Your task to perform on an android device: Go to location settings Image 0: 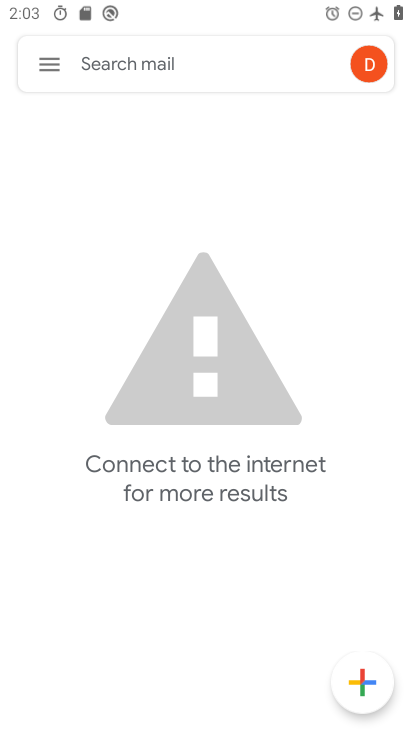
Step 0: press home button
Your task to perform on an android device: Go to location settings Image 1: 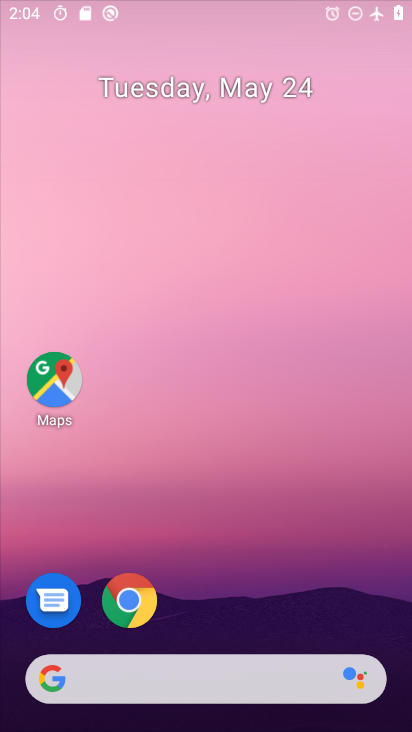
Step 1: drag from (237, 551) to (233, 134)
Your task to perform on an android device: Go to location settings Image 2: 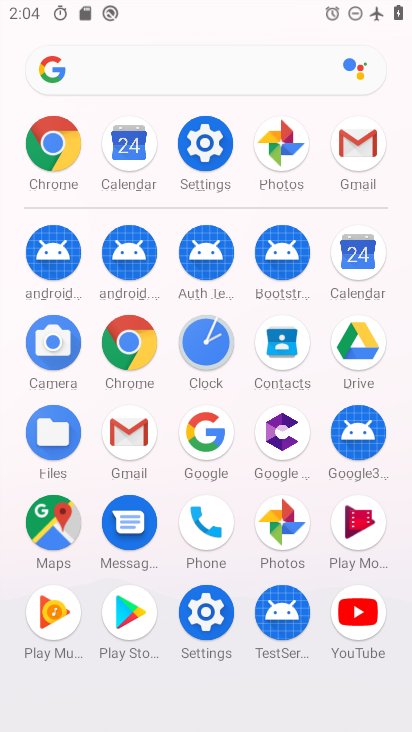
Step 2: click (212, 142)
Your task to perform on an android device: Go to location settings Image 3: 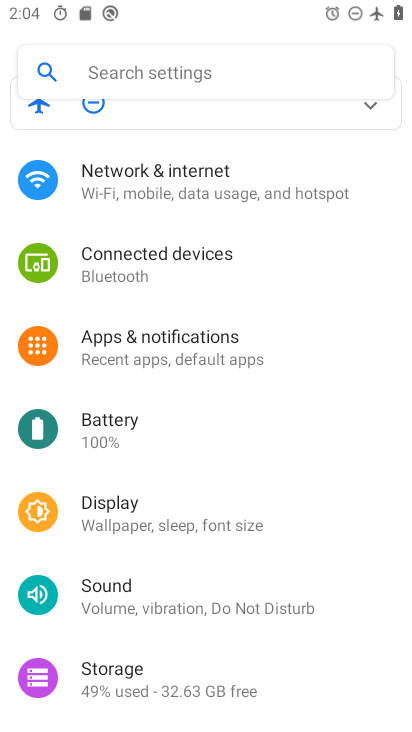
Step 3: drag from (165, 554) to (188, 242)
Your task to perform on an android device: Go to location settings Image 4: 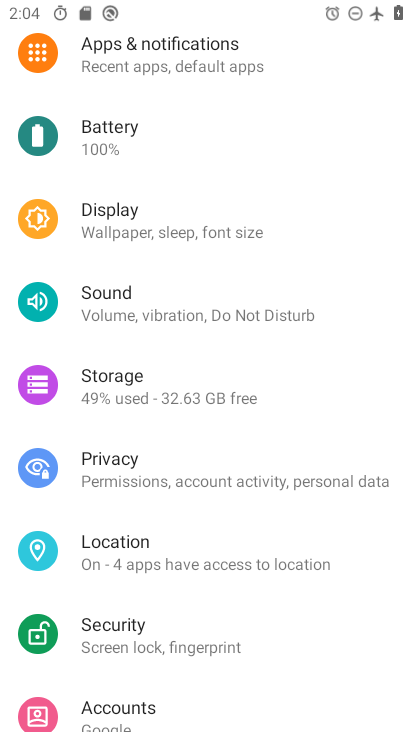
Step 4: click (135, 542)
Your task to perform on an android device: Go to location settings Image 5: 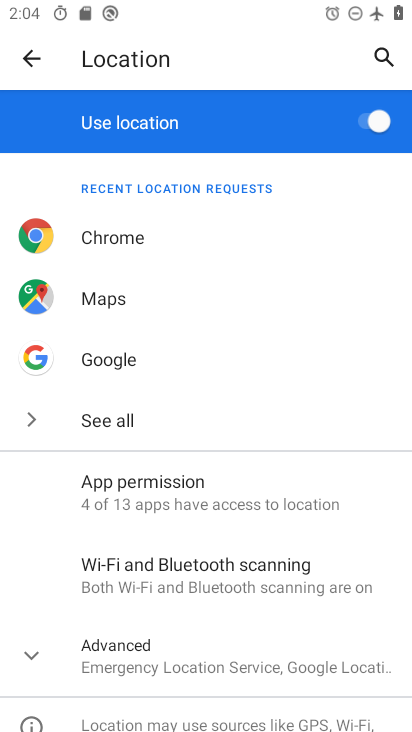
Step 5: task complete